Your task to perform on an android device: Do I have any events tomorrow? Image 0: 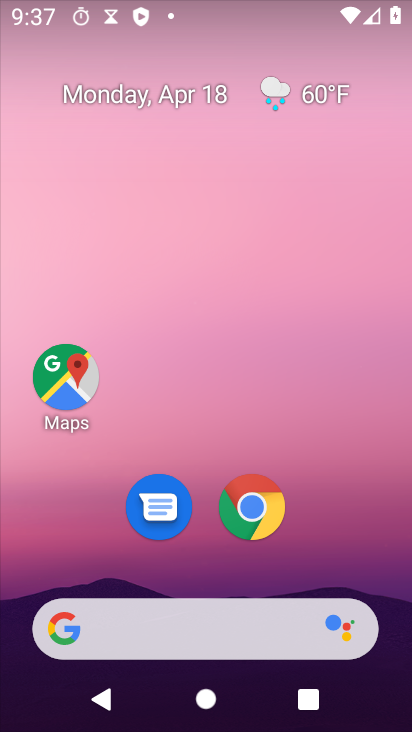
Step 0: drag from (360, 525) to (341, 159)
Your task to perform on an android device: Do I have any events tomorrow? Image 1: 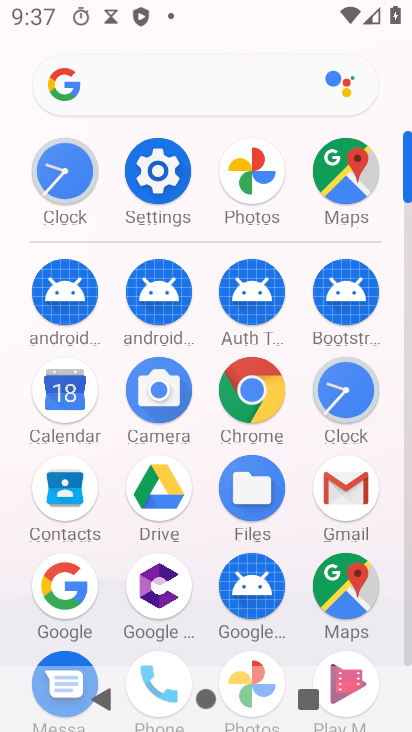
Step 1: click (58, 400)
Your task to perform on an android device: Do I have any events tomorrow? Image 2: 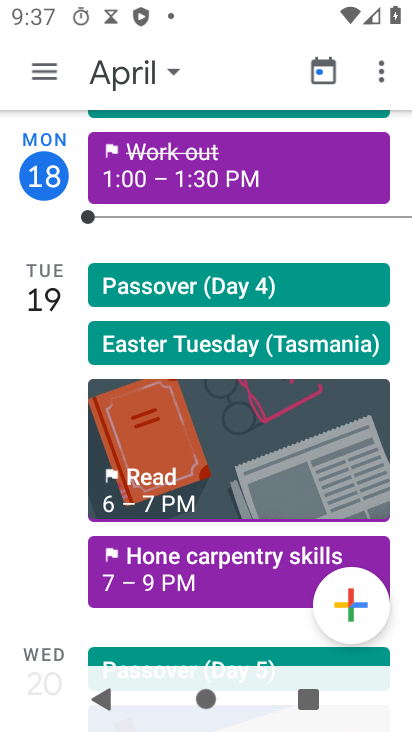
Step 2: click (161, 78)
Your task to perform on an android device: Do I have any events tomorrow? Image 3: 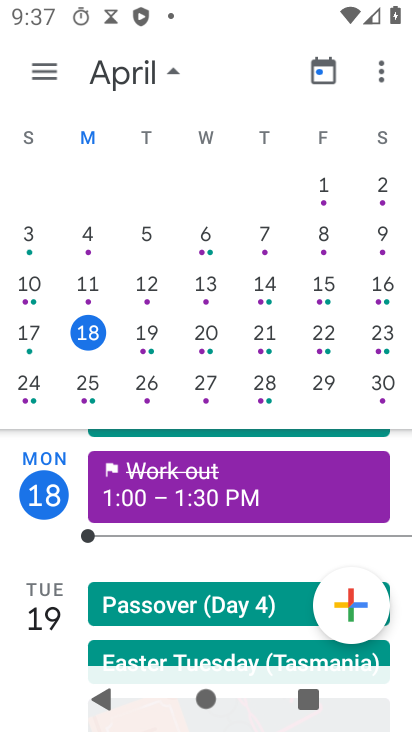
Step 3: click (164, 348)
Your task to perform on an android device: Do I have any events tomorrow? Image 4: 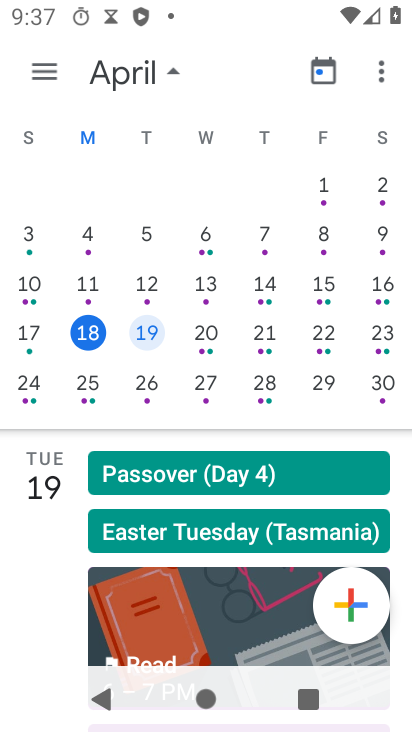
Step 4: click (208, 348)
Your task to perform on an android device: Do I have any events tomorrow? Image 5: 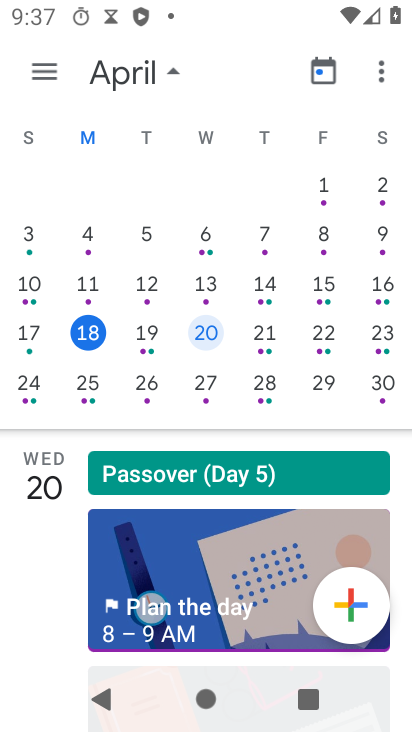
Step 5: task complete